Your task to perform on an android device: turn off location history Image 0: 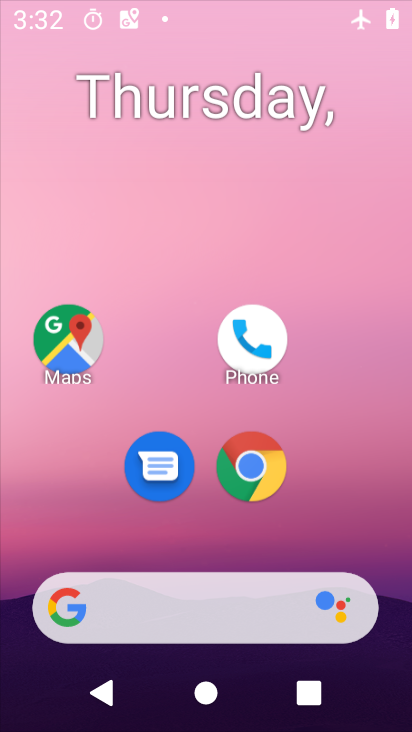
Step 0: click (265, 213)
Your task to perform on an android device: turn off location history Image 1: 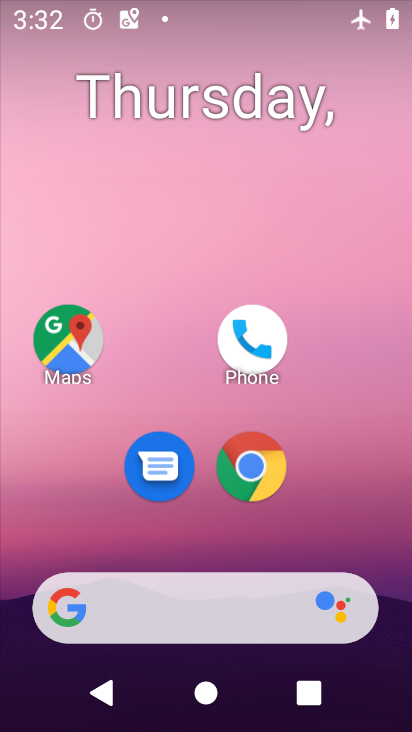
Step 1: drag from (214, 541) to (207, 217)
Your task to perform on an android device: turn off location history Image 2: 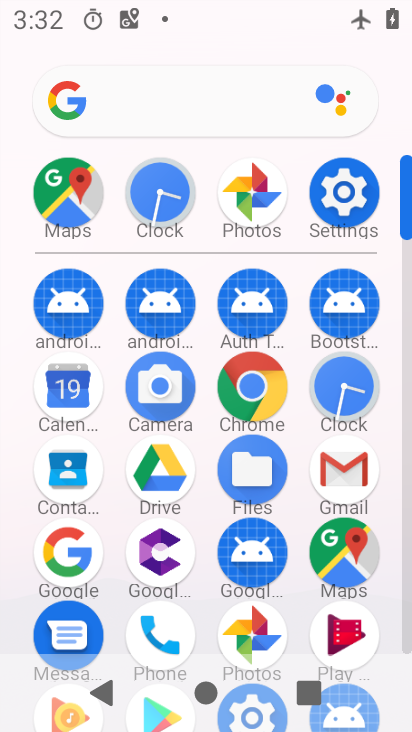
Step 2: drag from (209, 616) to (197, 263)
Your task to perform on an android device: turn off location history Image 3: 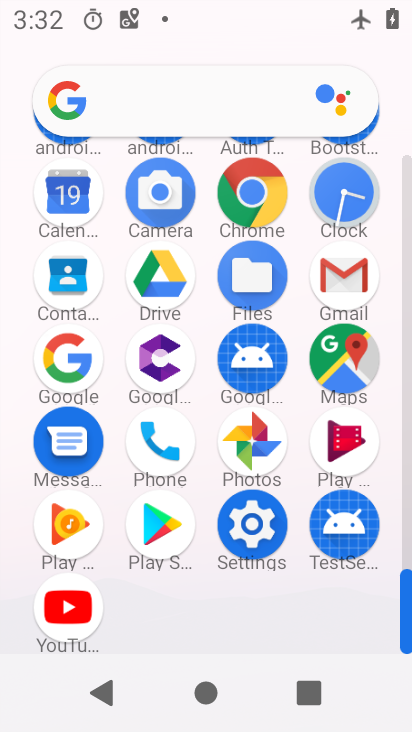
Step 3: click (247, 533)
Your task to perform on an android device: turn off location history Image 4: 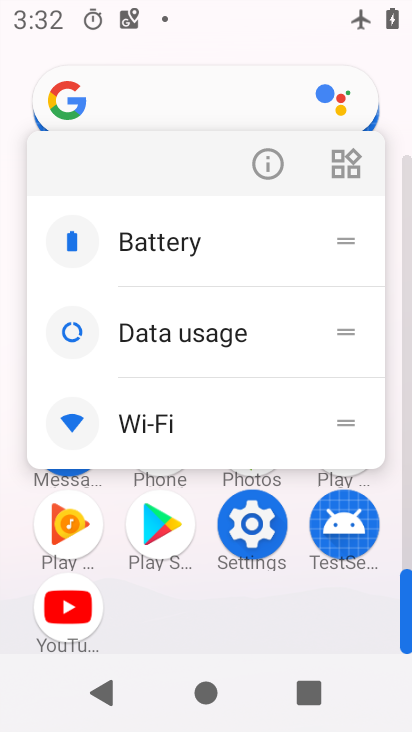
Step 4: click (268, 150)
Your task to perform on an android device: turn off location history Image 5: 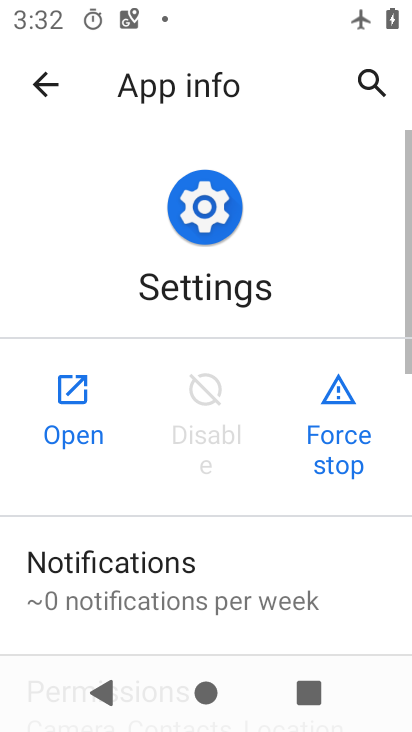
Step 5: click (76, 412)
Your task to perform on an android device: turn off location history Image 6: 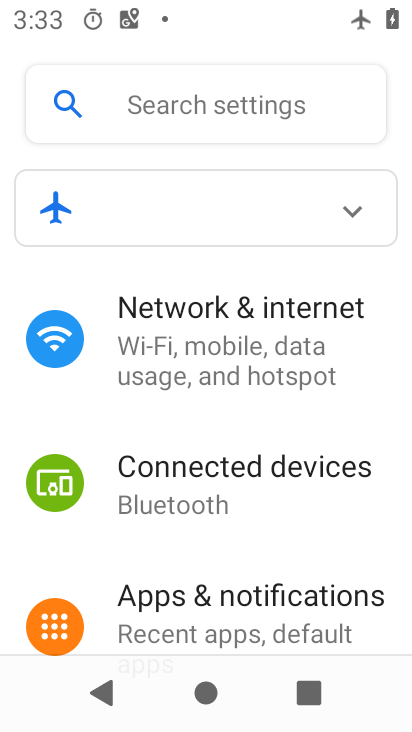
Step 6: drag from (166, 531) to (217, 247)
Your task to perform on an android device: turn off location history Image 7: 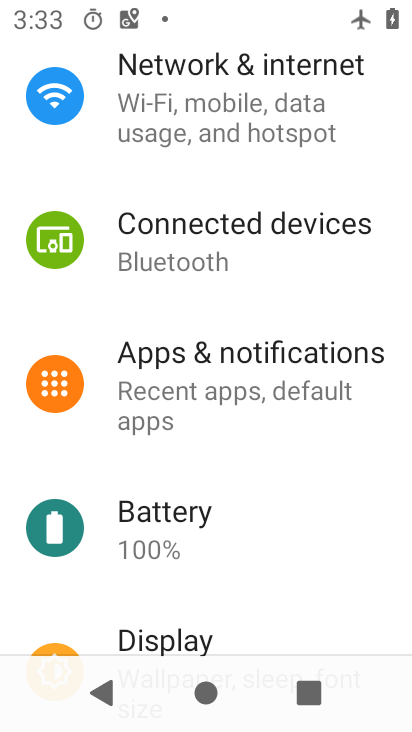
Step 7: drag from (209, 558) to (208, 266)
Your task to perform on an android device: turn off location history Image 8: 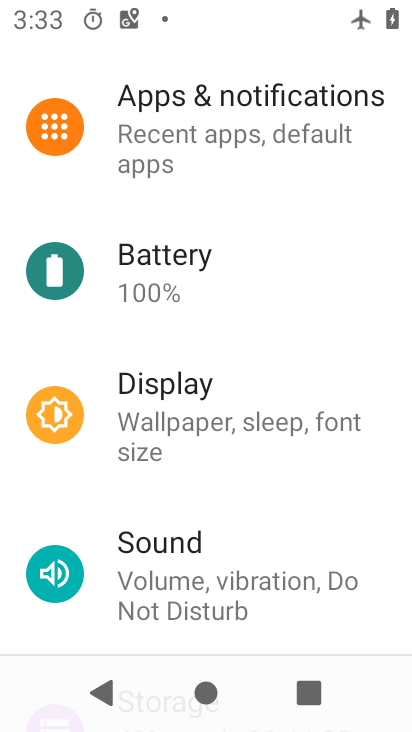
Step 8: drag from (235, 604) to (195, 368)
Your task to perform on an android device: turn off location history Image 9: 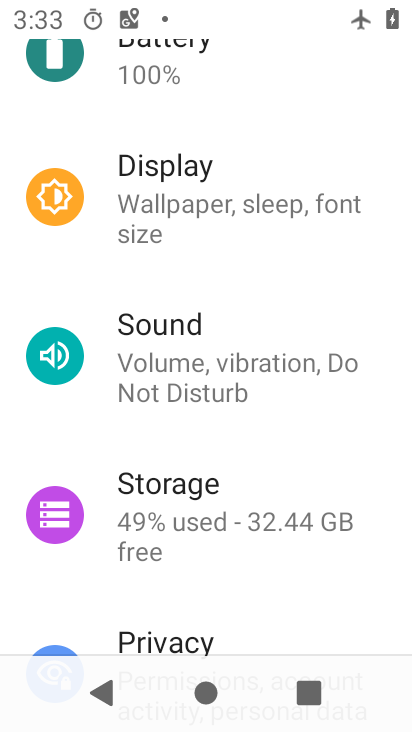
Step 9: drag from (197, 545) to (200, 277)
Your task to perform on an android device: turn off location history Image 10: 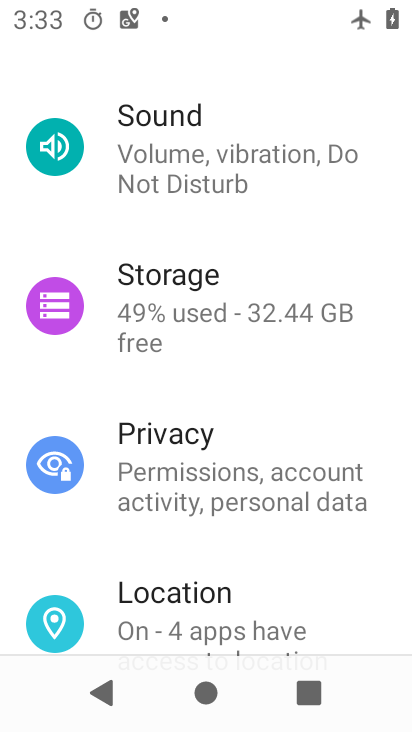
Step 10: click (189, 634)
Your task to perform on an android device: turn off location history Image 11: 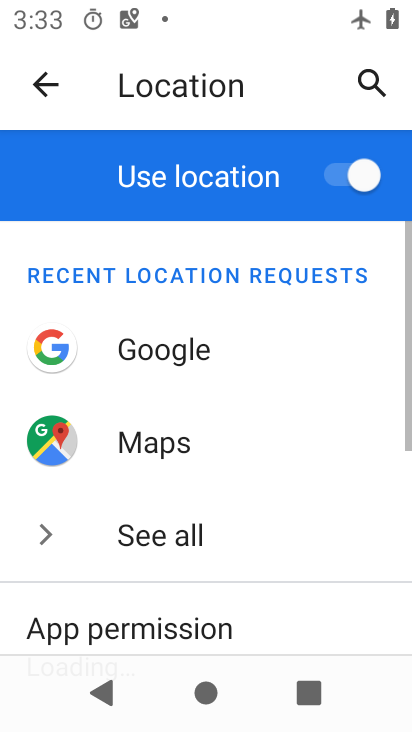
Step 11: drag from (211, 572) to (262, 121)
Your task to perform on an android device: turn off location history Image 12: 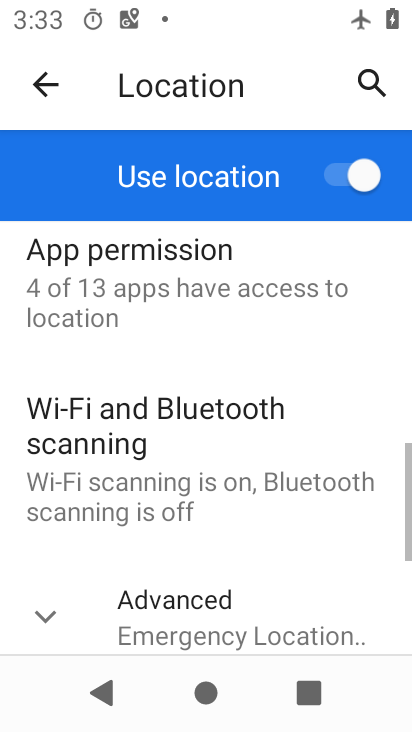
Step 12: click (156, 605)
Your task to perform on an android device: turn off location history Image 13: 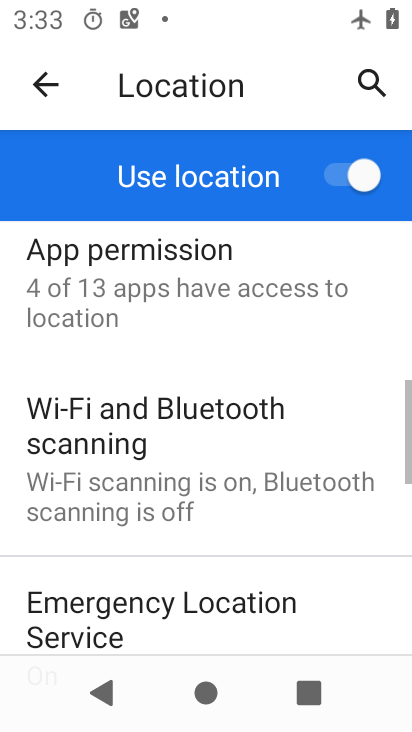
Step 13: drag from (176, 589) to (270, 61)
Your task to perform on an android device: turn off location history Image 14: 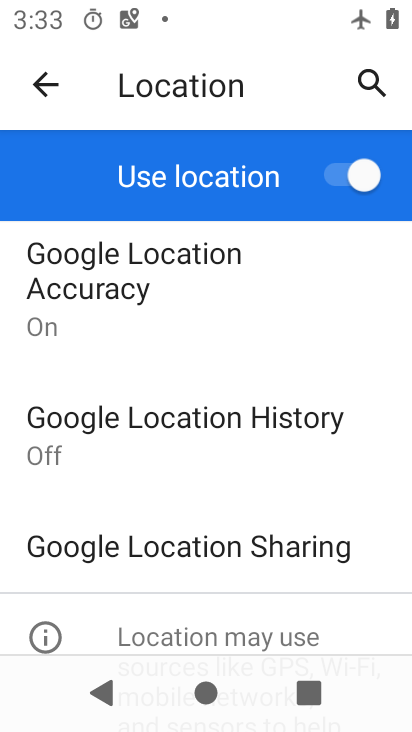
Step 14: click (205, 431)
Your task to perform on an android device: turn off location history Image 15: 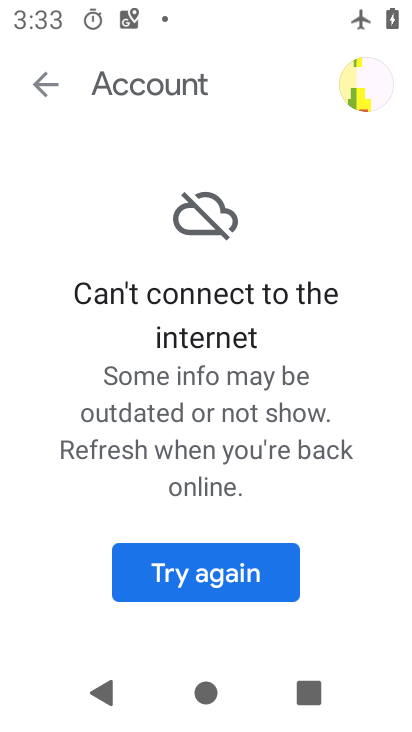
Step 15: task complete